Your task to perform on an android device: toggle notifications settings in the gmail app Image 0: 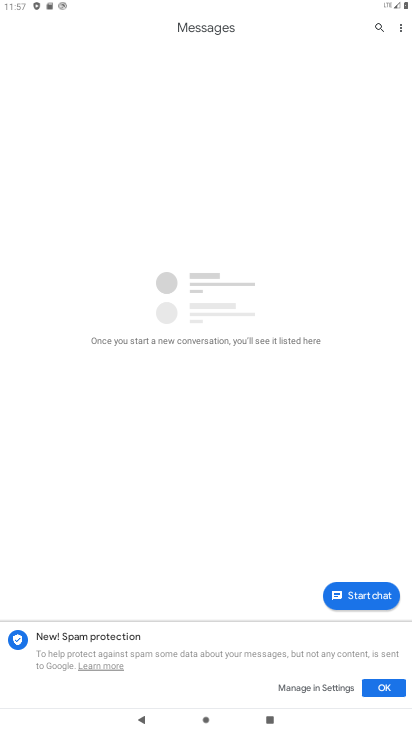
Step 0: press home button
Your task to perform on an android device: toggle notifications settings in the gmail app Image 1: 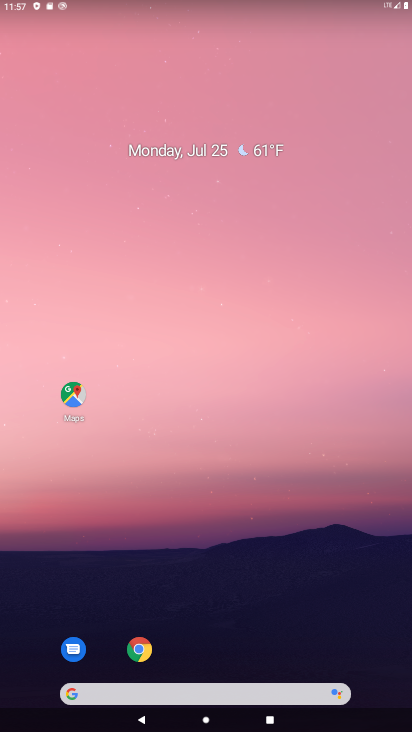
Step 1: drag from (215, 665) to (133, 102)
Your task to perform on an android device: toggle notifications settings in the gmail app Image 2: 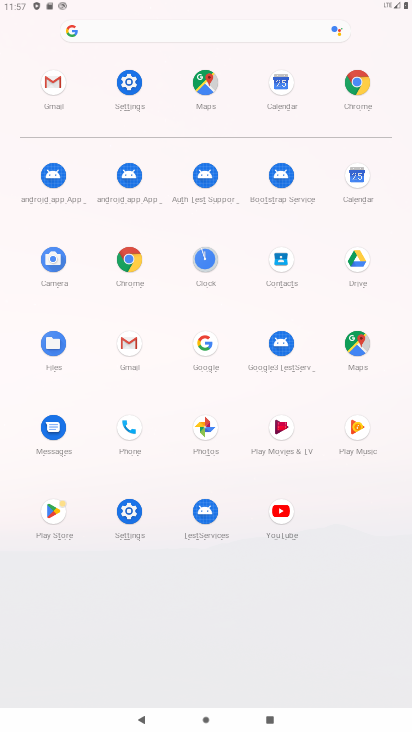
Step 2: click (133, 351)
Your task to perform on an android device: toggle notifications settings in the gmail app Image 3: 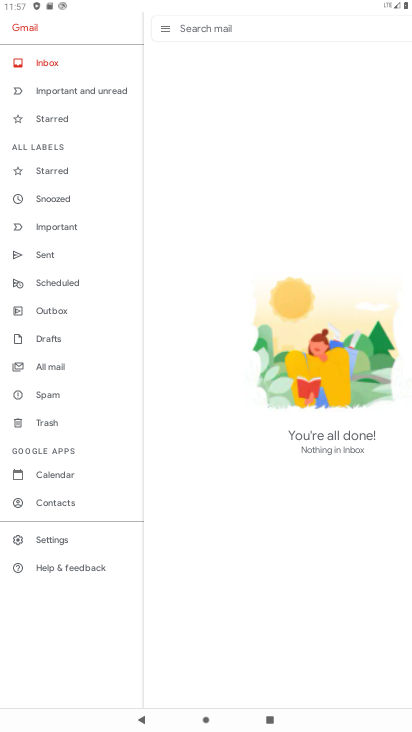
Step 3: click (50, 537)
Your task to perform on an android device: toggle notifications settings in the gmail app Image 4: 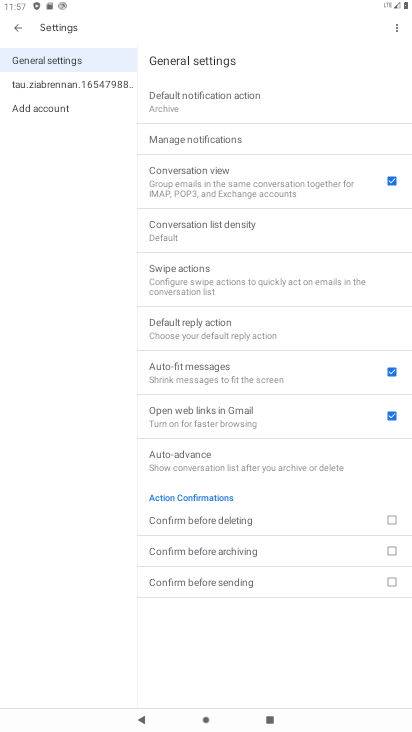
Step 4: click (220, 139)
Your task to perform on an android device: toggle notifications settings in the gmail app Image 5: 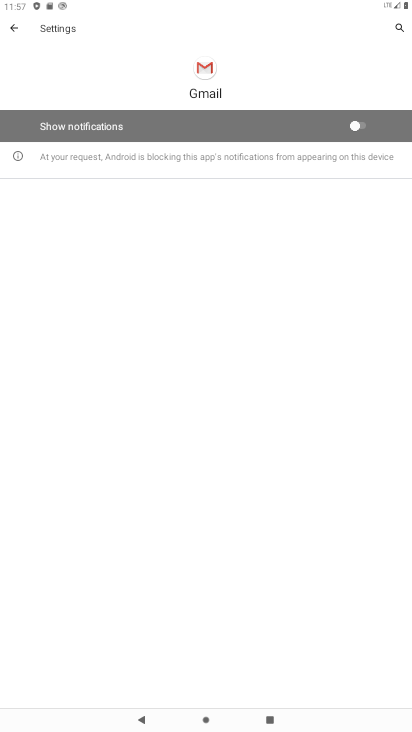
Step 5: click (357, 122)
Your task to perform on an android device: toggle notifications settings in the gmail app Image 6: 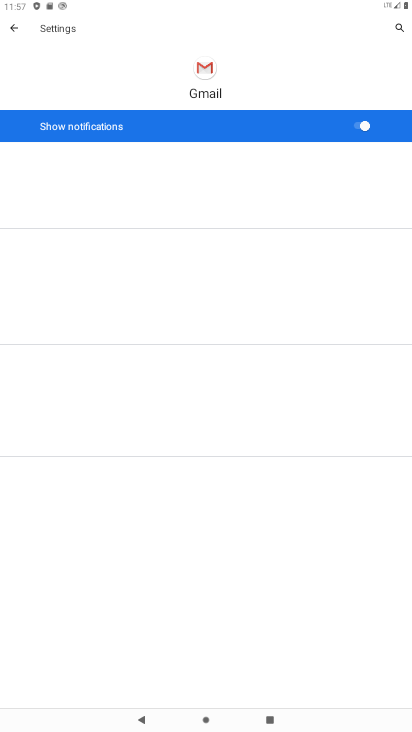
Step 6: task complete